Your task to perform on an android device: Go to wifi settings Image 0: 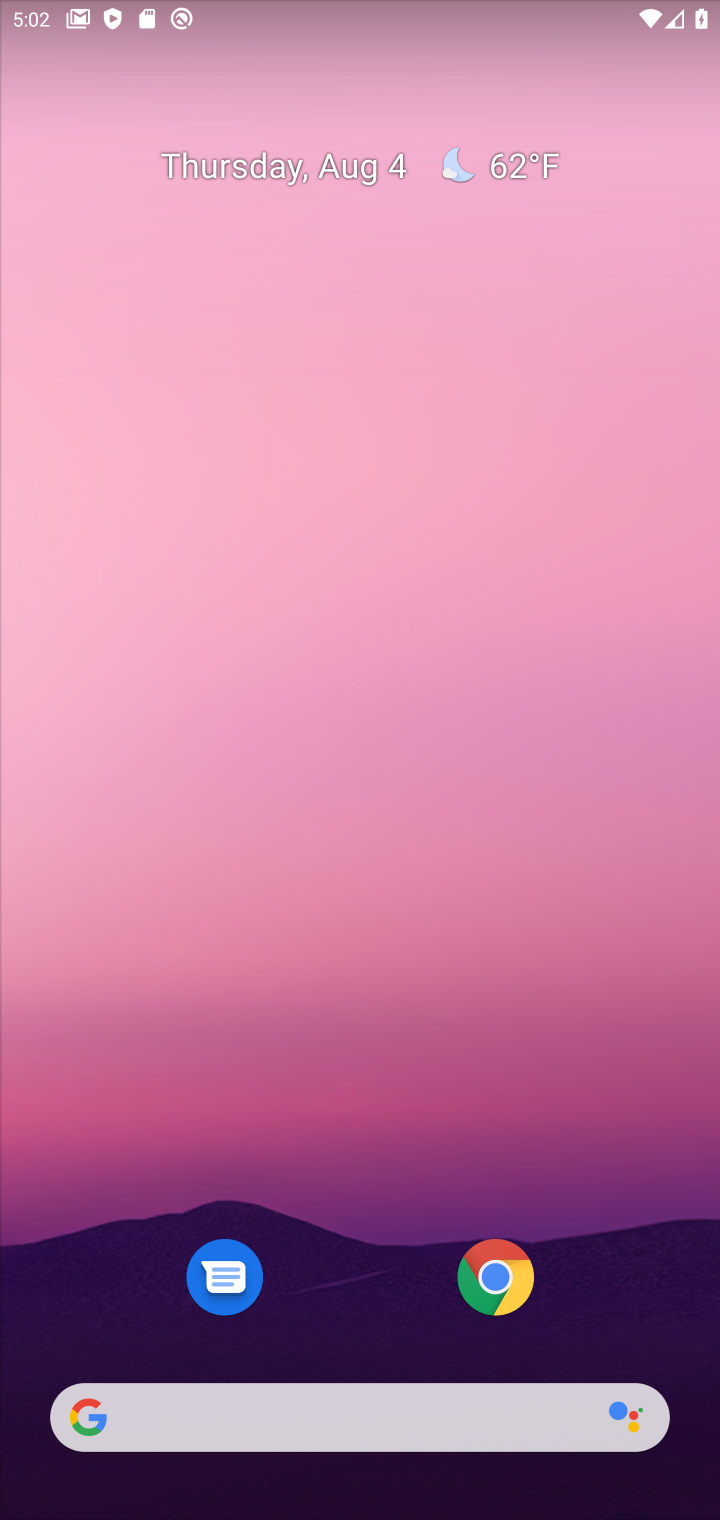
Step 0: drag from (452, 1016) to (290, 31)
Your task to perform on an android device: Go to wifi settings Image 1: 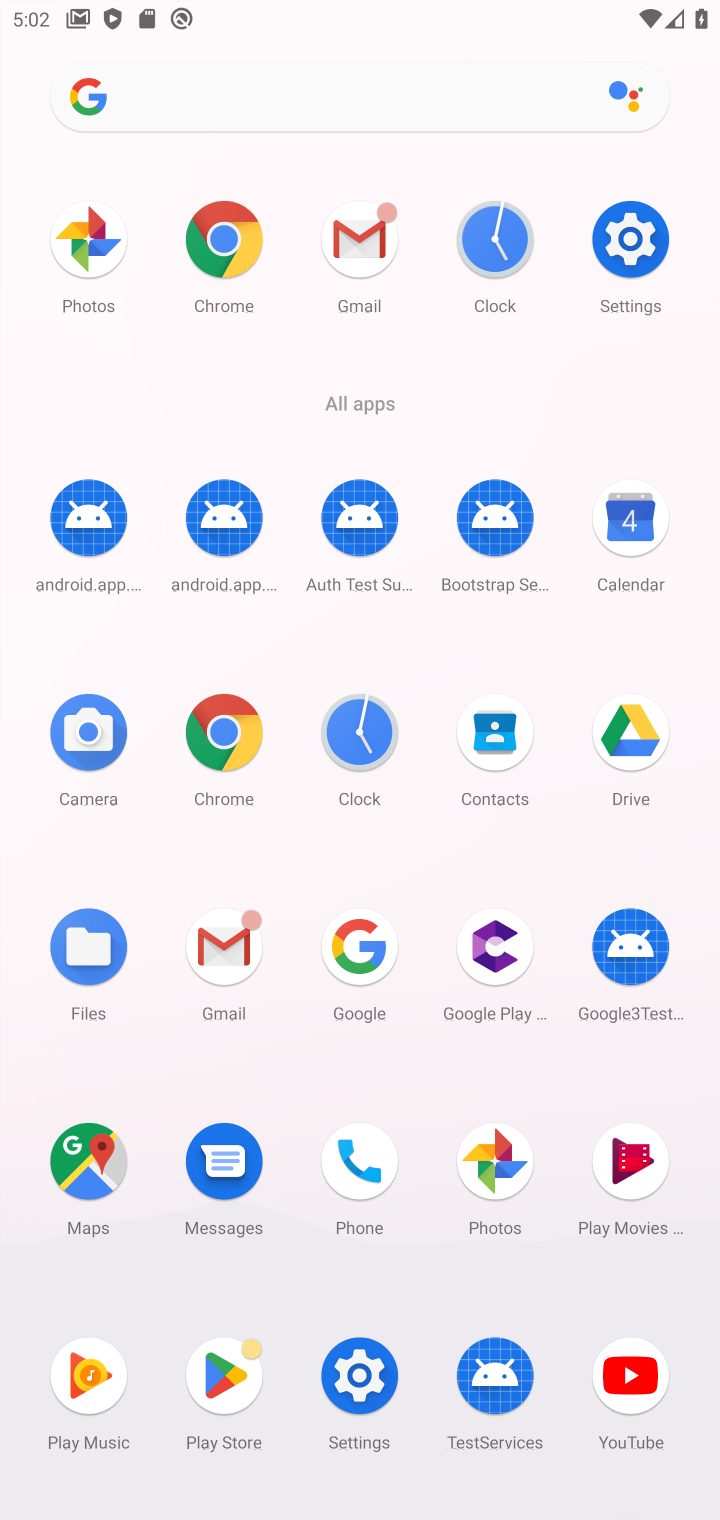
Step 1: click (654, 268)
Your task to perform on an android device: Go to wifi settings Image 2: 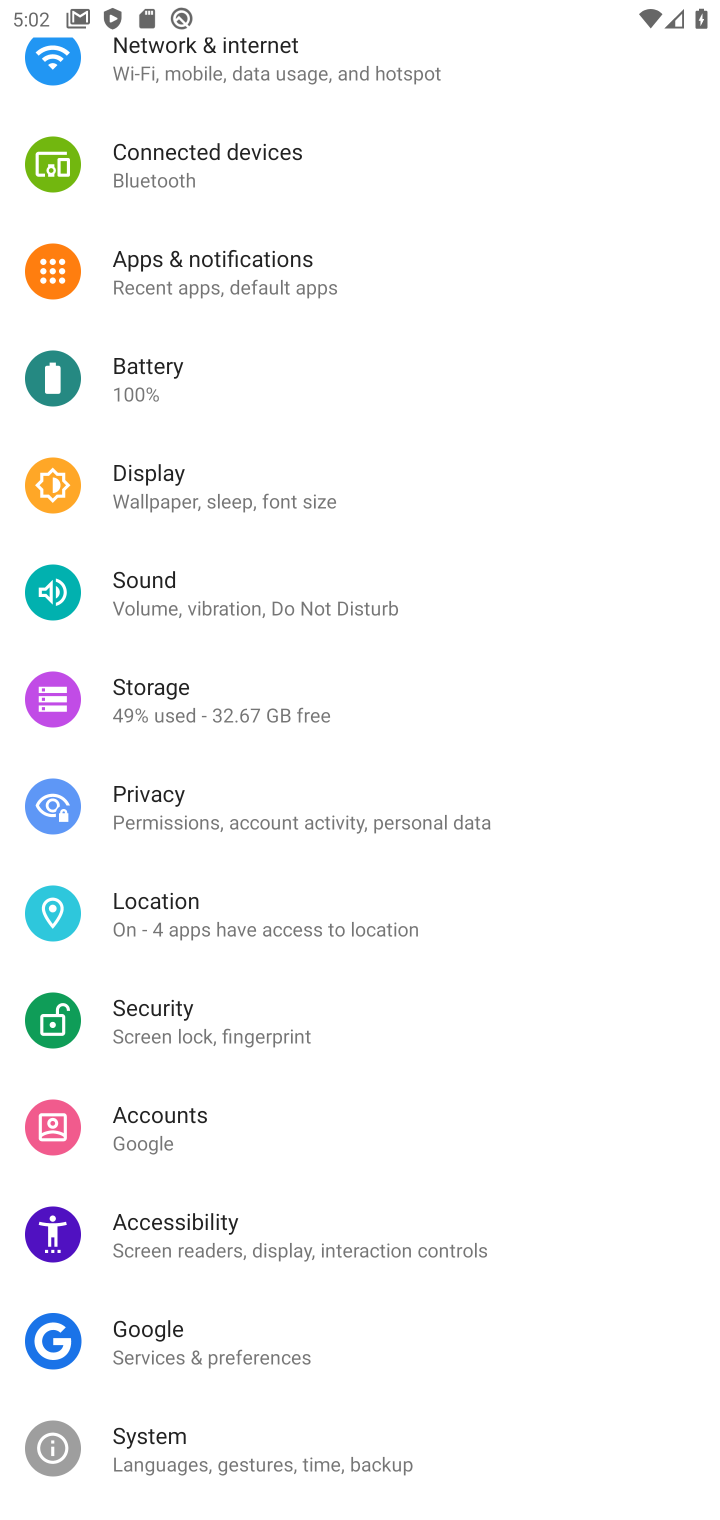
Step 2: drag from (242, 187) to (251, 1192)
Your task to perform on an android device: Go to wifi settings Image 3: 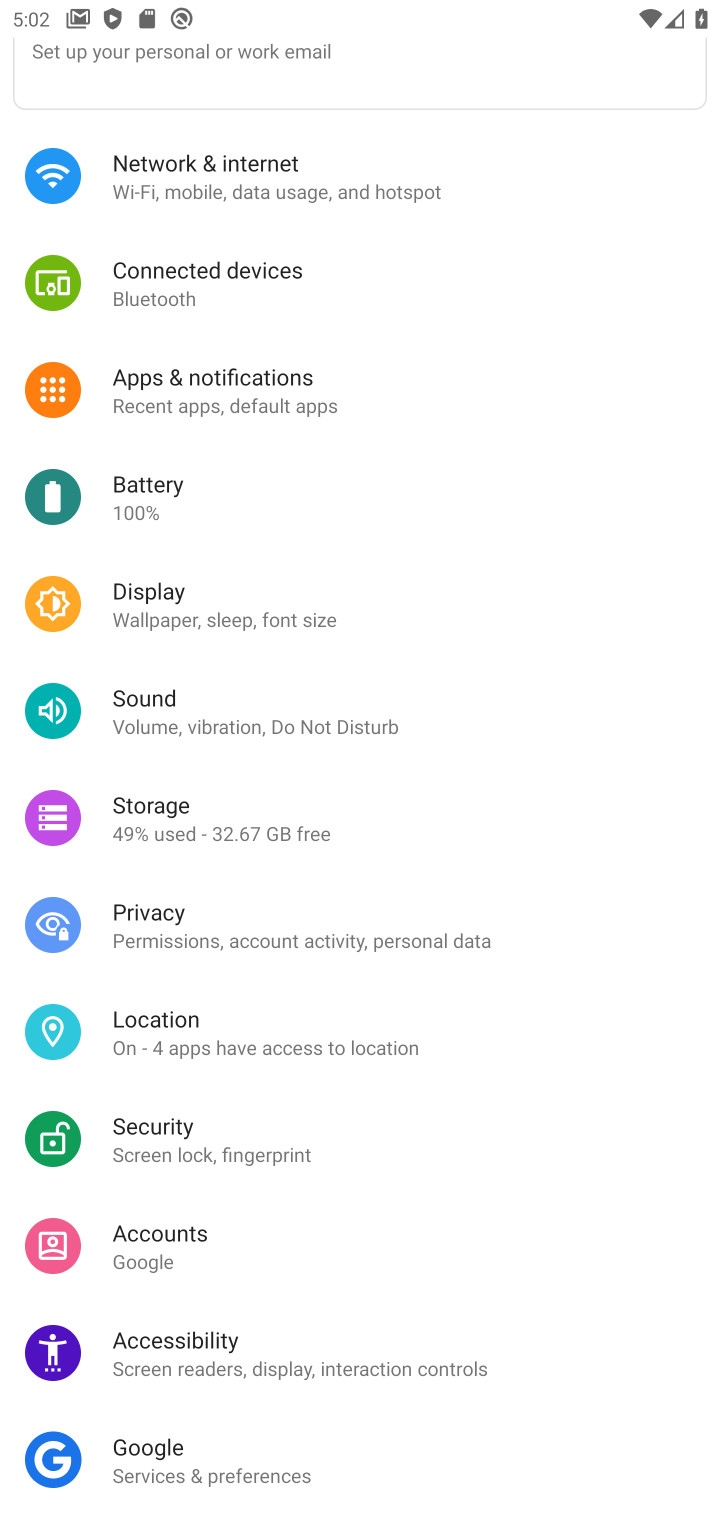
Step 3: click (204, 171)
Your task to perform on an android device: Go to wifi settings Image 4: 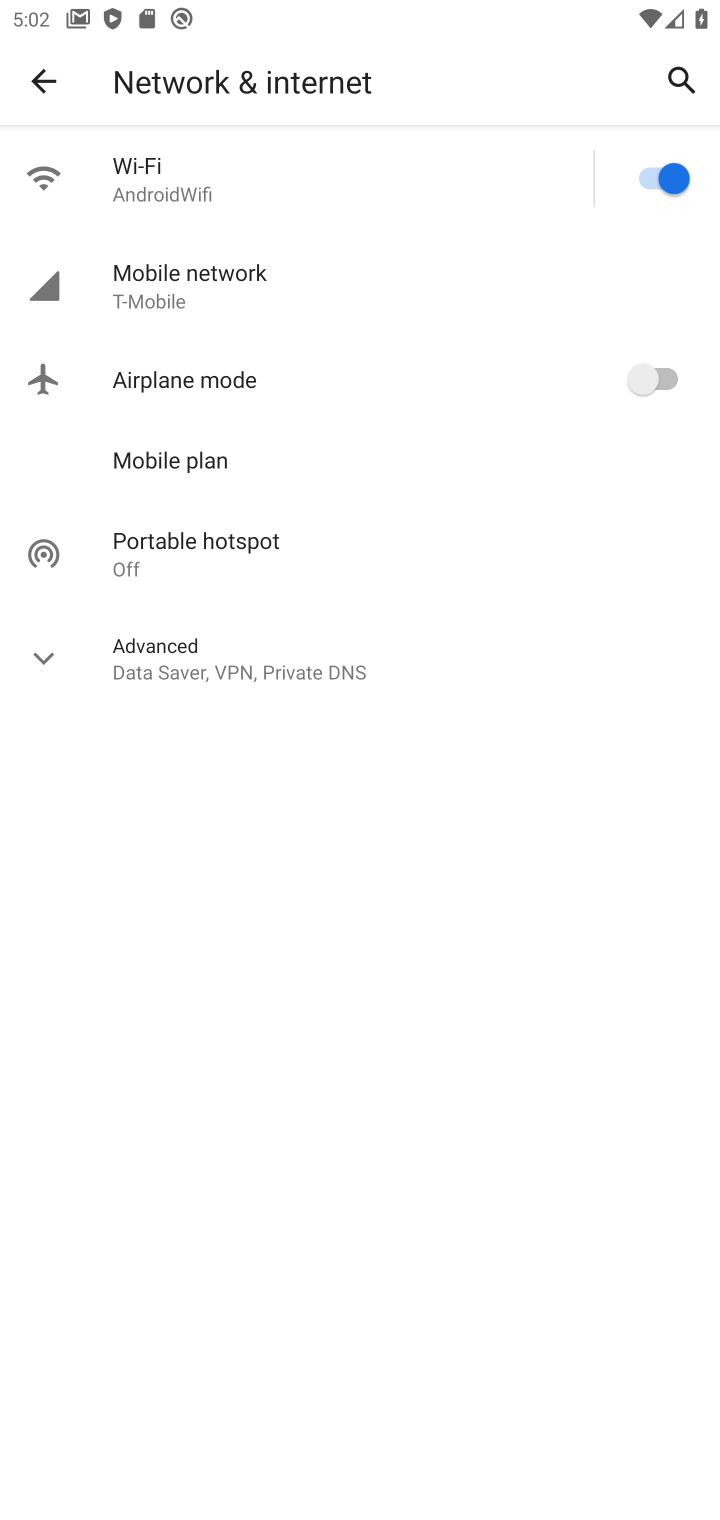
Step 4: click (204, 171)
Your task to perform on an android device: Go to wifi settings Image 5: 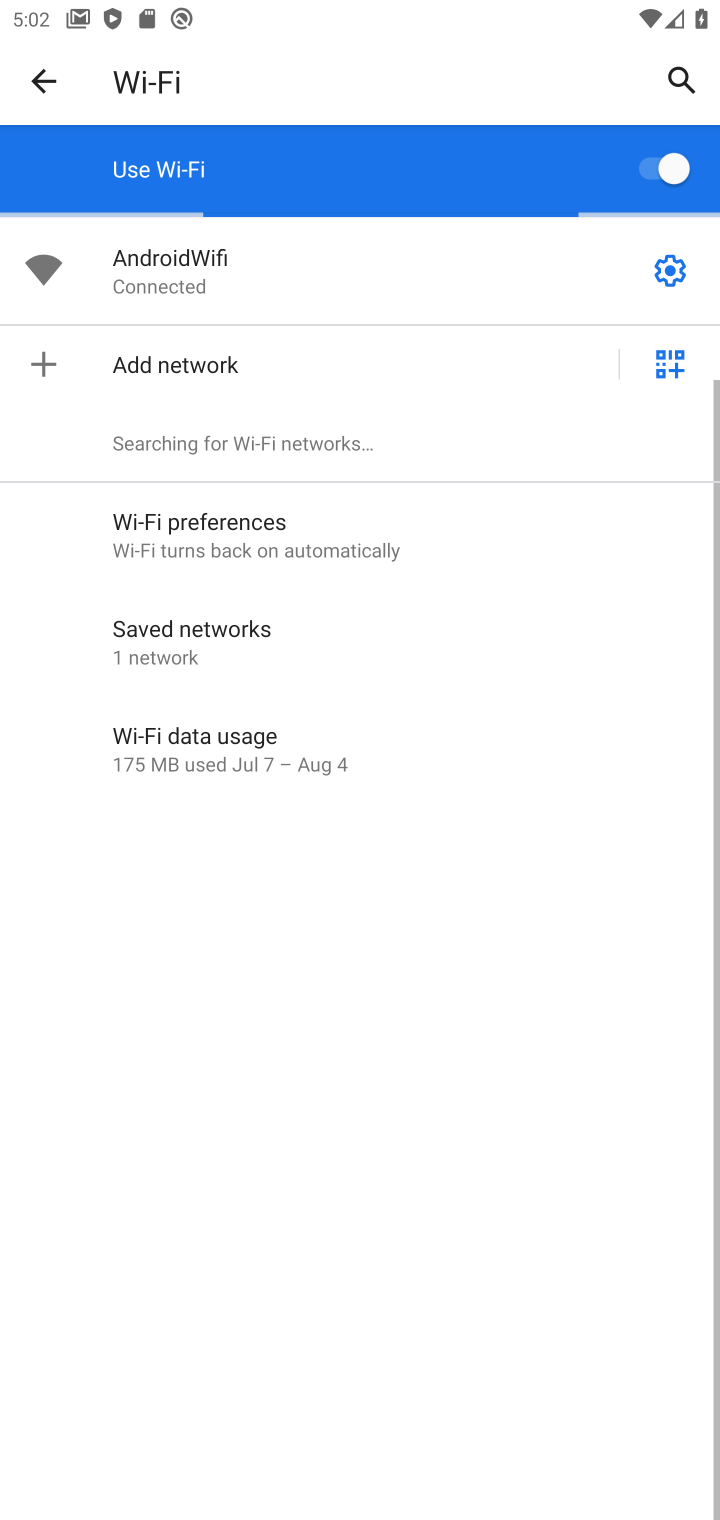
Step 5: task complete